Your task to perform on an android device: What is the capital of Norway? Image 0: 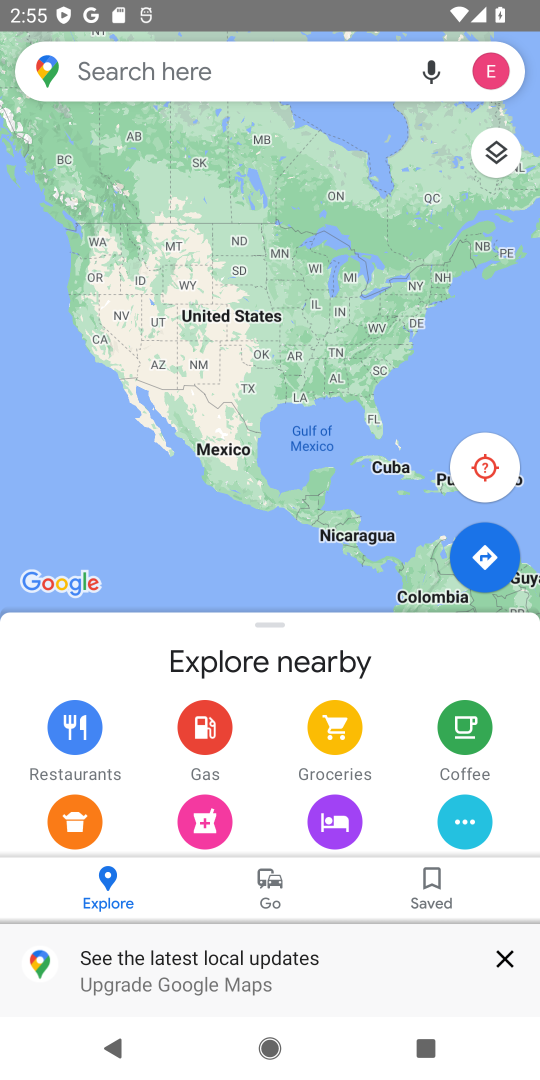
Step 0: press home button
Your task to perform on an android device: What is the capital of Norway? Image 1: 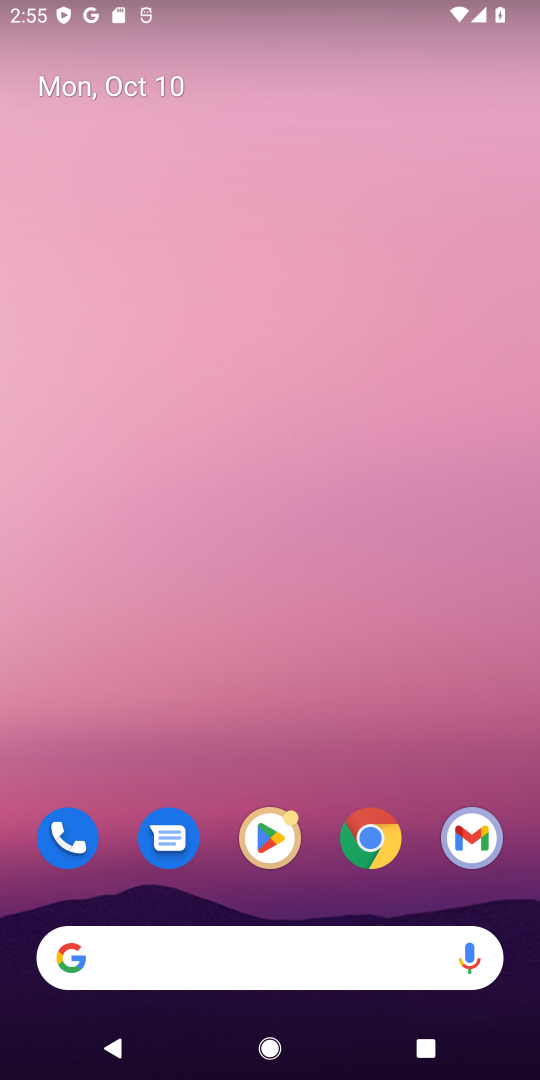
Step 1: click (185, 938)
Your task to perform on an android device: What is the capital of Norway? Image 2: 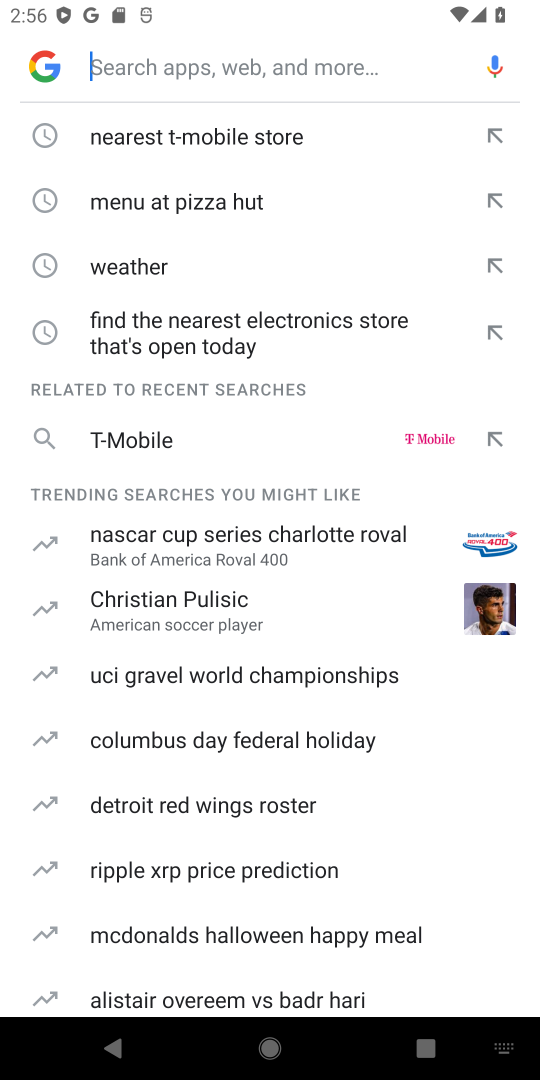
Step 2: type "capital of Norway"
Your task to perform on an android device: What is the capital of Norway? Image 3: 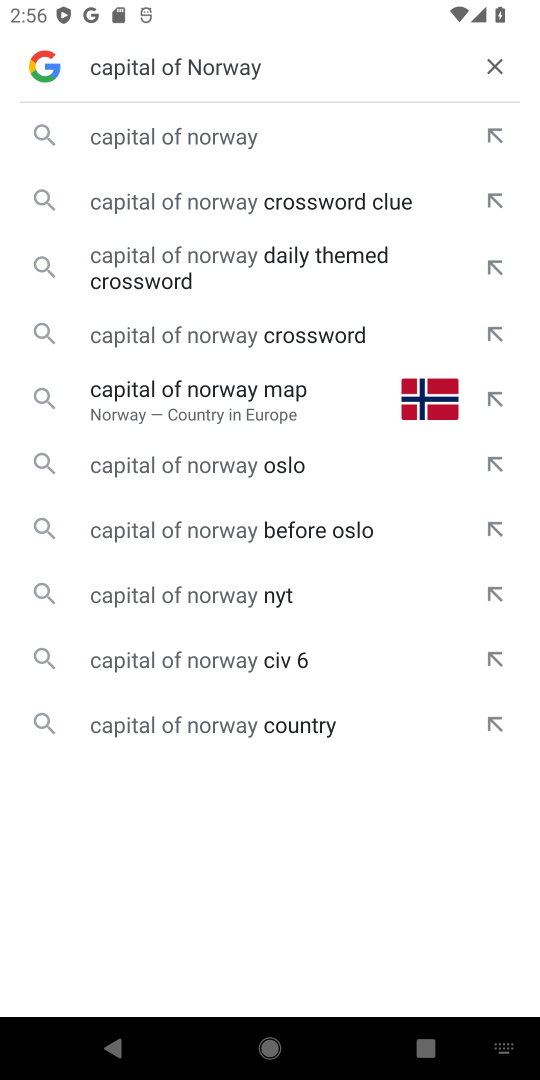
Step 3: click (202, 134)
Your task to perform on an android device: What is the capital of Norway? Image 4: 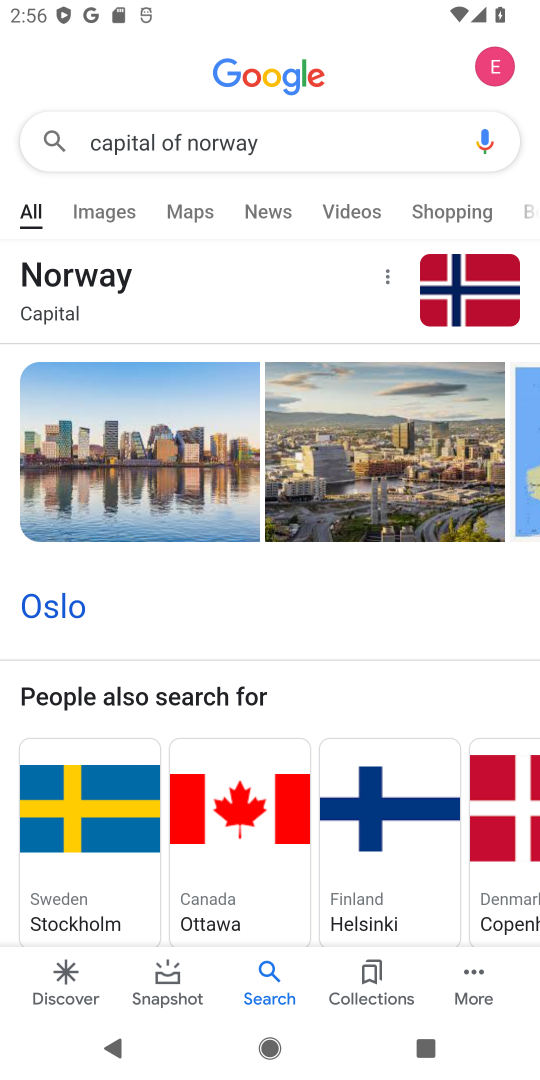
Step 4: task complete